Your task to perform on an android device: Is it going to rain today? Image 0: 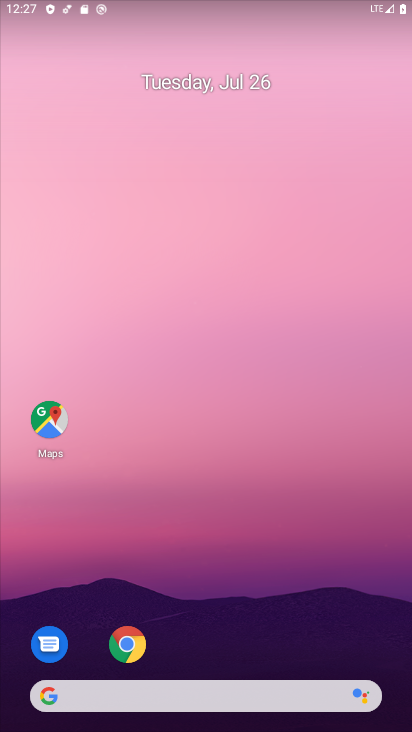
Step 0: click (209, 696)
Your task to perform on an android device: Is it going to rain today? Image 1: 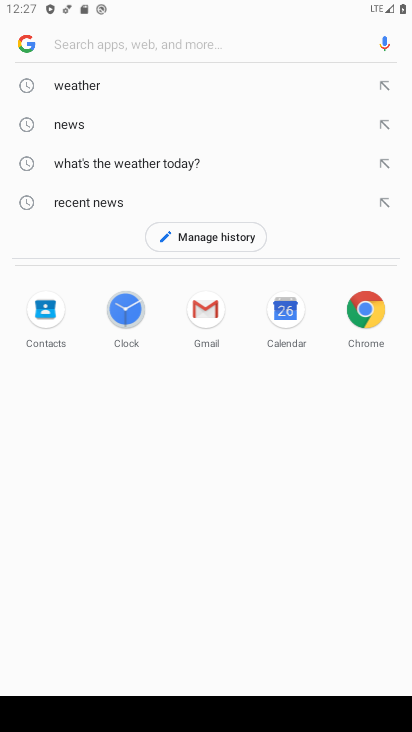
Step 1: type "Is it going to rain today?"
Your task to perform on an android device: Is it going to rain today? Image 2: 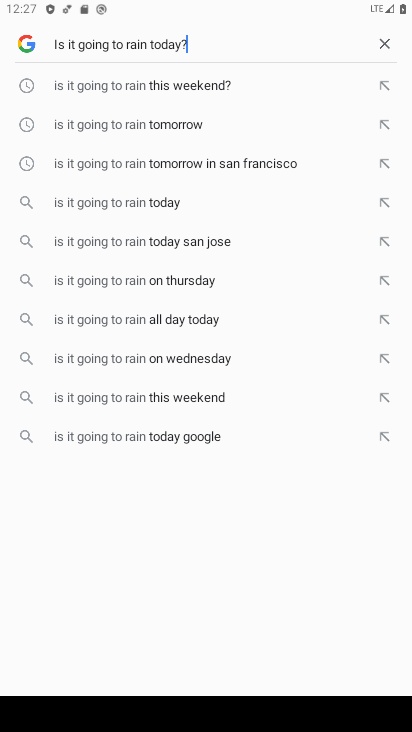
Step 2: press enter
Your task to perform on an android device: Is it going to rain today? Image 3: 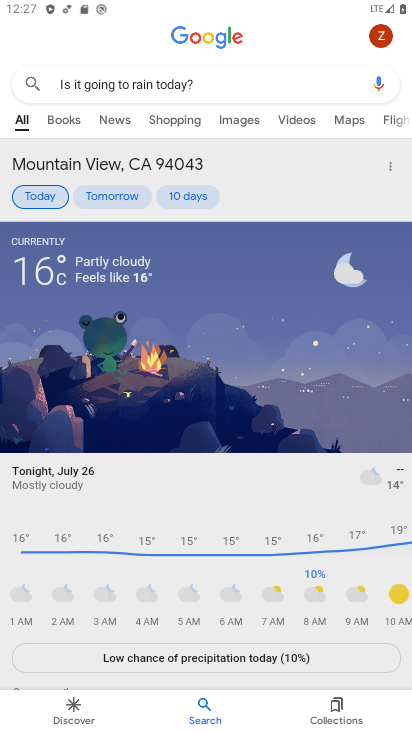
Step 3: task complete